Your task to perform on an android device: find snoozed emails in the gmail app Image 0: 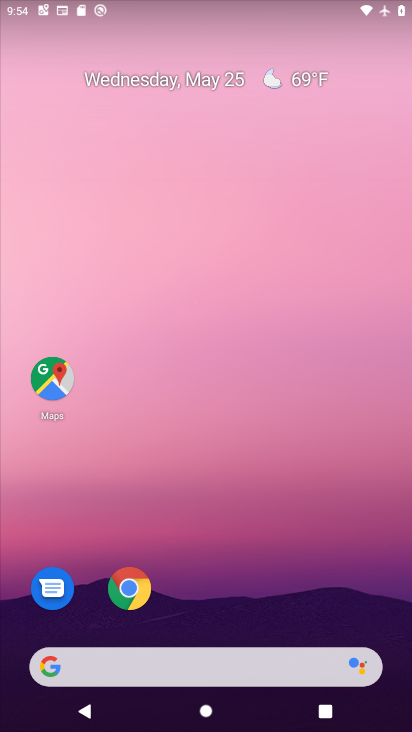
Step 0: drag from (370, 611) to (377, 285)
Your task to perform on an android device: find snoozed emails in the gmail app Image 1: 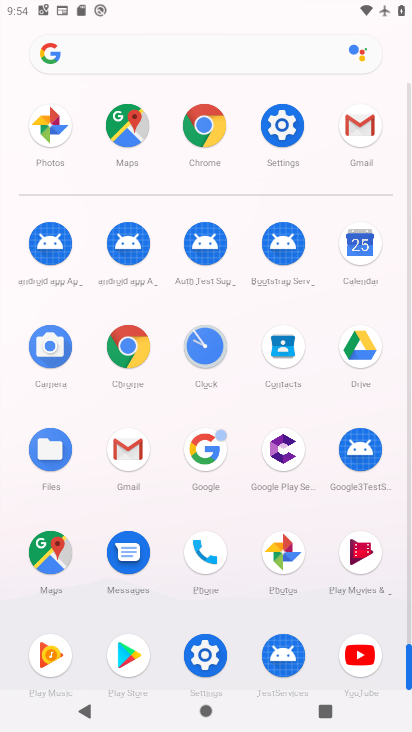
Step 1: click (142, 463)
Your task to perform on an android device: find snoozed emails in the gmail app Image 2: 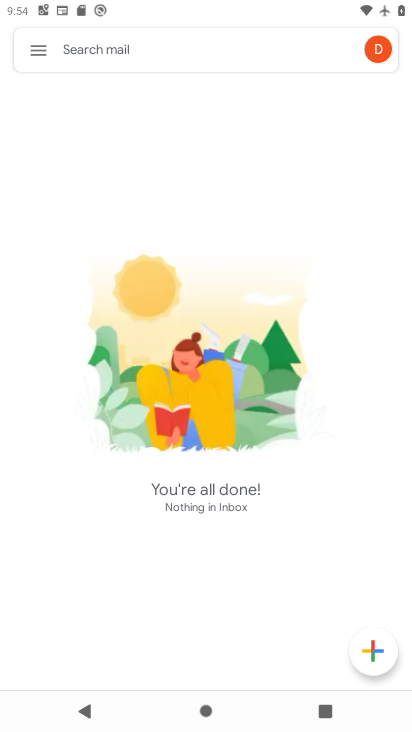
Step 2: click (41, 61)
Your task to perform on an android device: find snoozed emails in the gmail app Image 3: 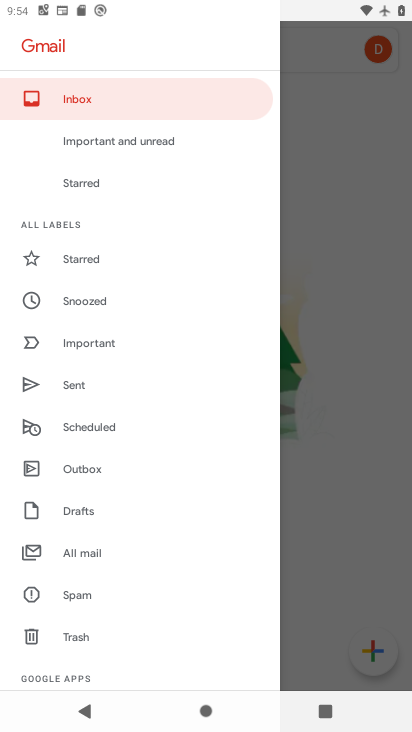
Step 3: drag from (232, 528) to (214, 336)
Your task to perform on an android device: find snoozed emails in the gmail app Image 4: 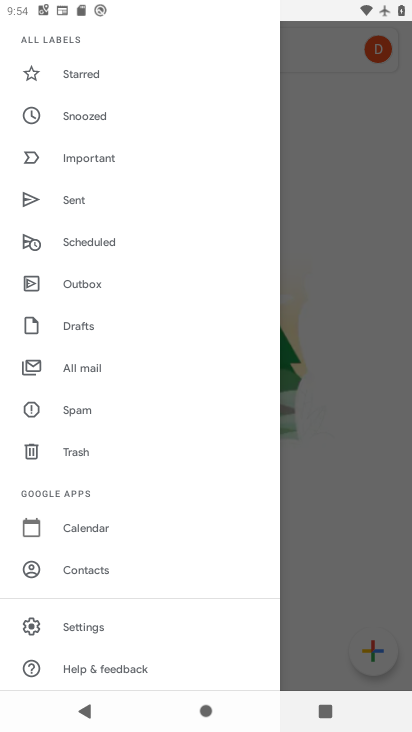
Step 4: drag from (207, 540) to (223, 424)
Your task to perform on an android device: find snoozed emails in the gmail app Image 5: 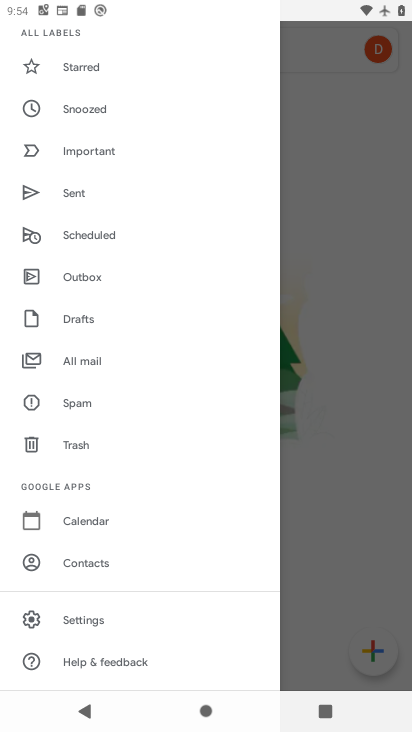
Step 5: drag from (204, 323) to (206, 384)
Your task to perform on an android device: find snoozed emails in the gmail app Image 6: 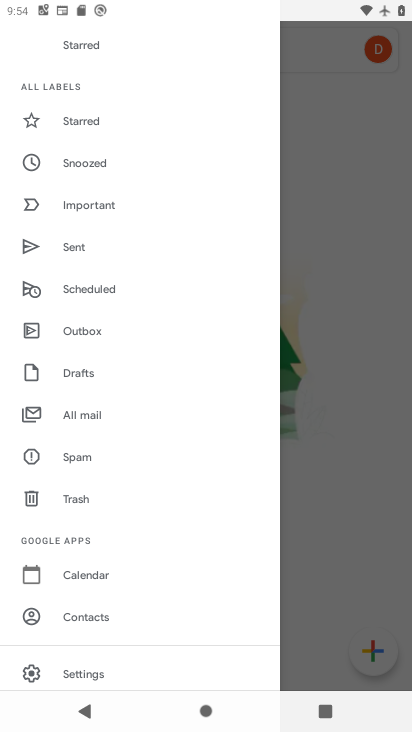
Step 6: drag from (207, 290) to (213, 383)
Your task to perform on an android device: find snoozed emails in the gmail app Image 7: 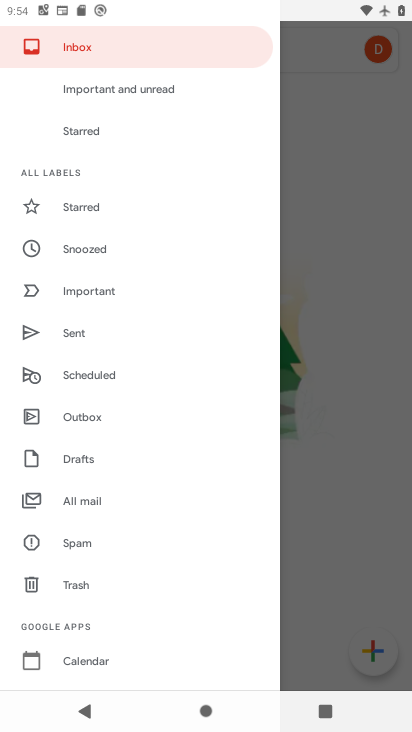
Step 7: drag from (213, 242) to (218, 332)
Your task to perform on an android device: find snoozed emails in the gmail app Image 8: 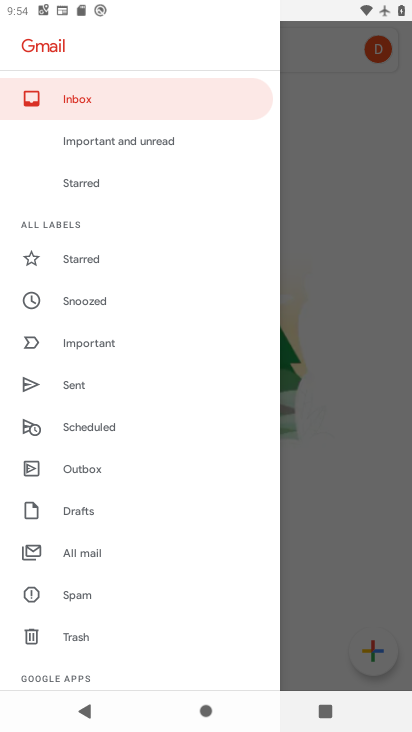
Step 8: drag from (201, 239) to (199, 366)
Your task to perform on an android device: find snoozed emails in the gmail app Image 9: 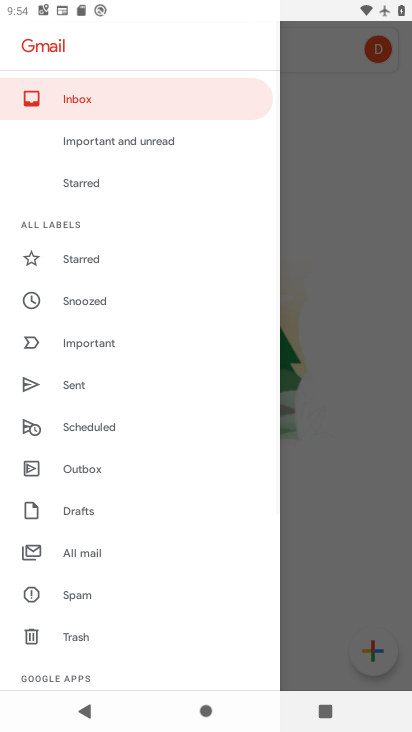
Step 9: click (106, 303)
Your task to perform on an android device: find snoozed emails in the gmail app Image 10: 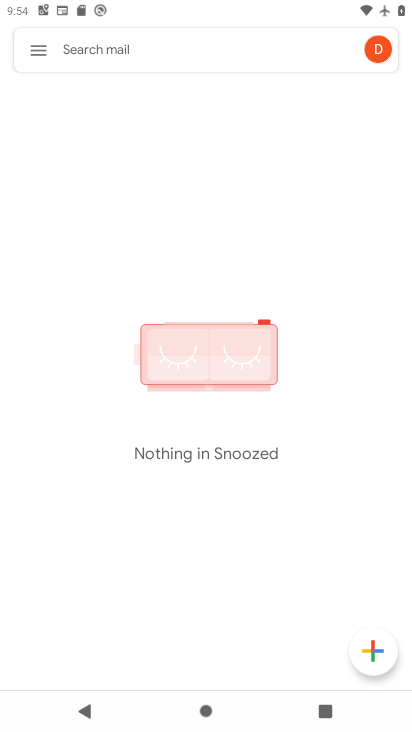
Step 10: task complete